Your task to perform on an android device: stop showing notifications on the lock screen Image 0: 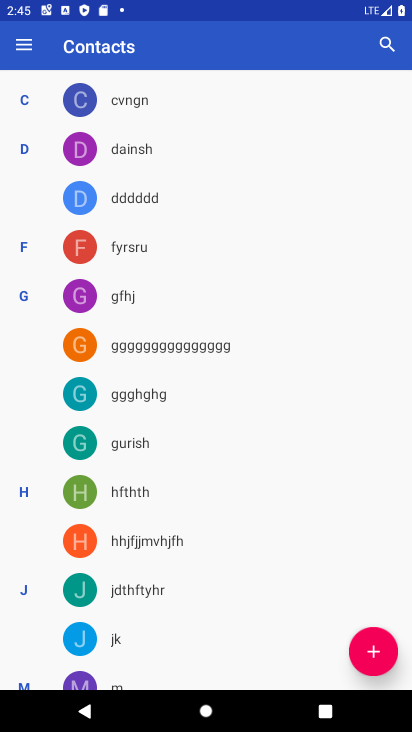
Step 0: press home button
Your task to perform on an android device: stop showing notifications on the lock screen Image 1: 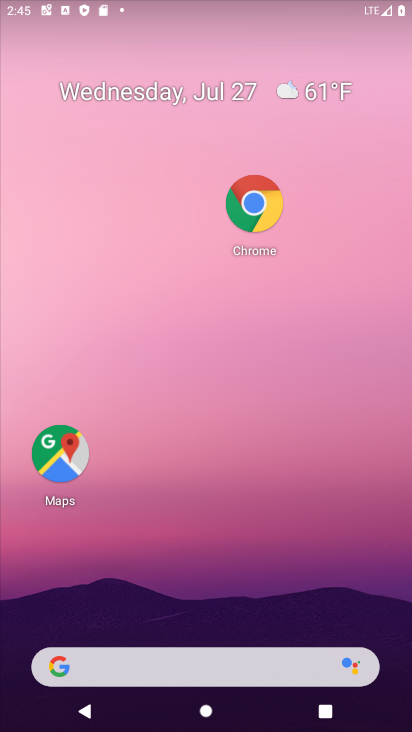
Step 1: drag from (242, 604) to (247, 162)
Your task to perform on an android device: stop showing notifications on the lock screen Image 2: 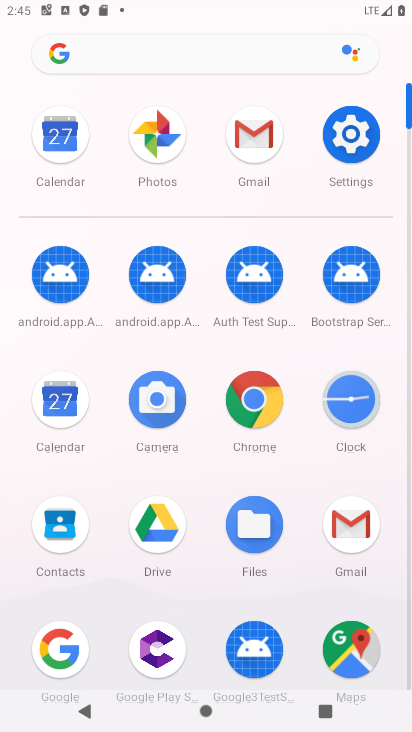
Step 2: click (338, 165)
Your task to perform on an android device: stop showing notifications on the lock screen Image 3: 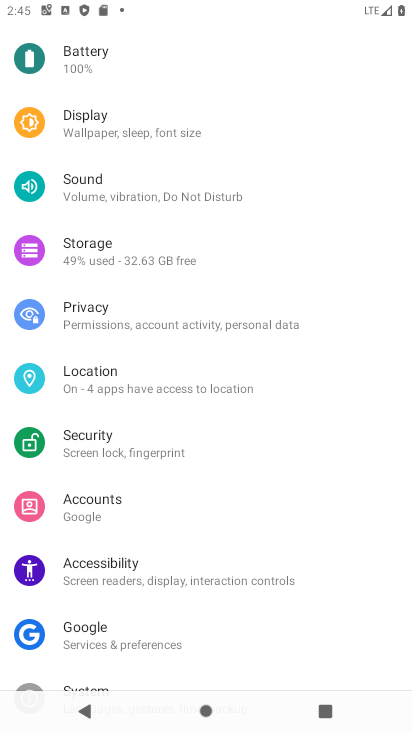
Step 3: drag from (185, 290) to (185, 543)
Your task to perform on an android device: stop showing notifications on the lock screen Image 4: 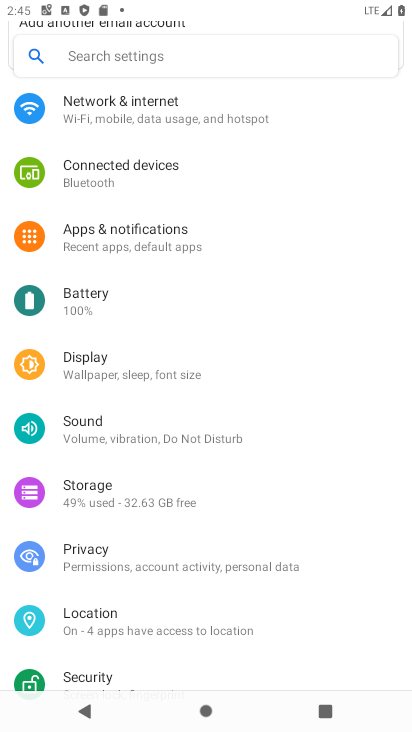
Step 4: click (216, 243)
Your task to perform on an android device: stop showing notifications on the lock screen Image 5: 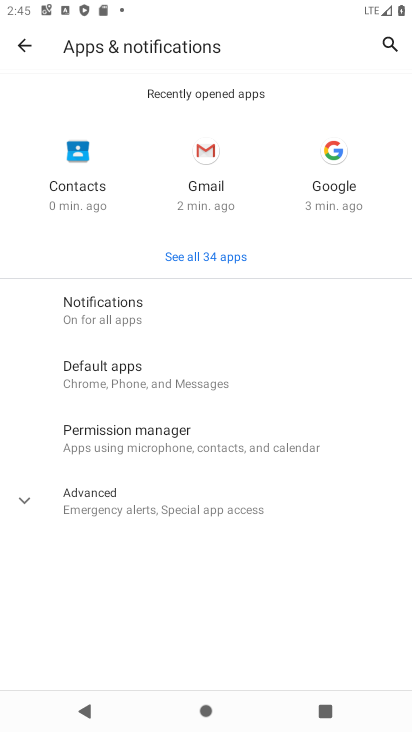
Step 5: click (202, 318)
Your task to perform on an android device: stop showing notifications on the lock screen Image 6: 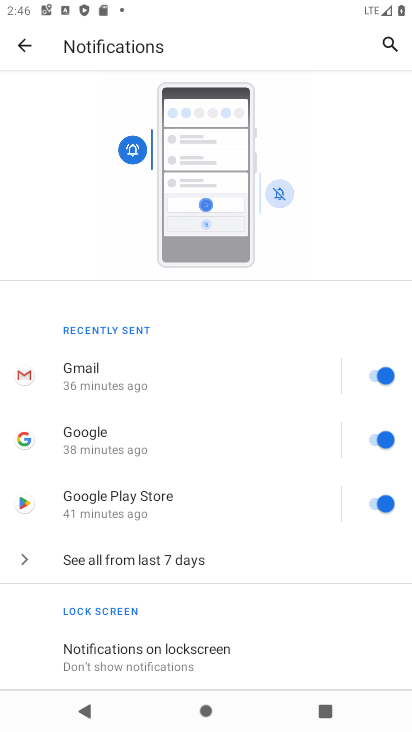
Step 6: click (208, 649)
Your task to perform on an android device: stop showing notifications on the lock screen Image 7: 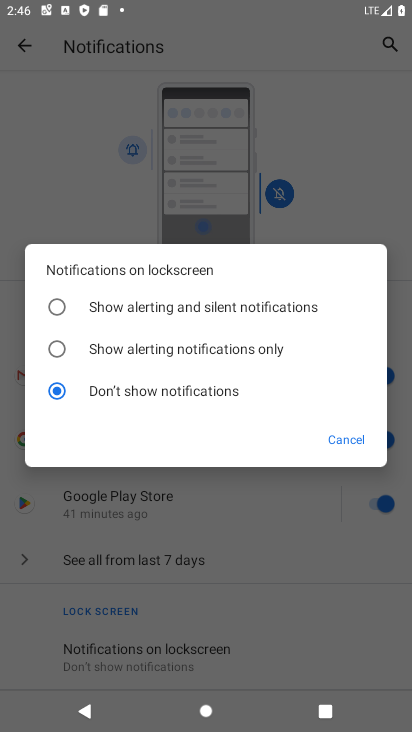
Step 7: task complete